Your task to perform on an android device: Show me recent news Image 0: 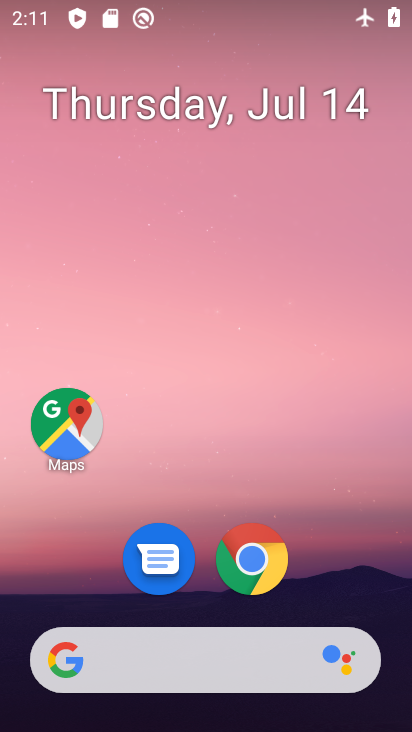
Step 0: drag from (251, 654) to (264, 93)
Your task to perform on an android device: Show me recent news Image 1: 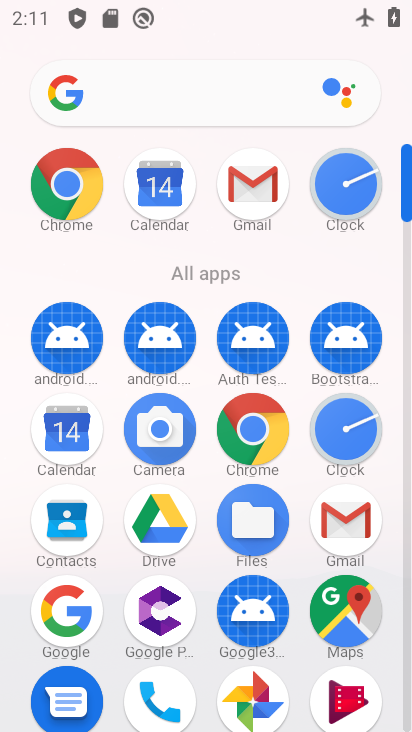
Step 1: click (249, 432)
Your task to perform on an android device: Show me recent news Image 2: 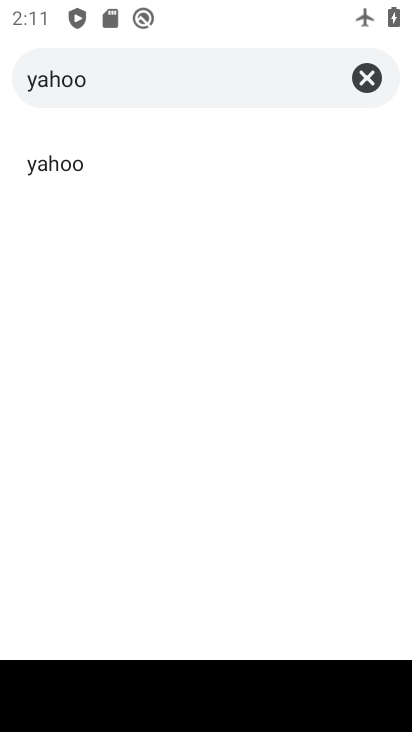
Step 2: click (375, 79)
Your task to perform on an android device: Show me recent news Image 3: 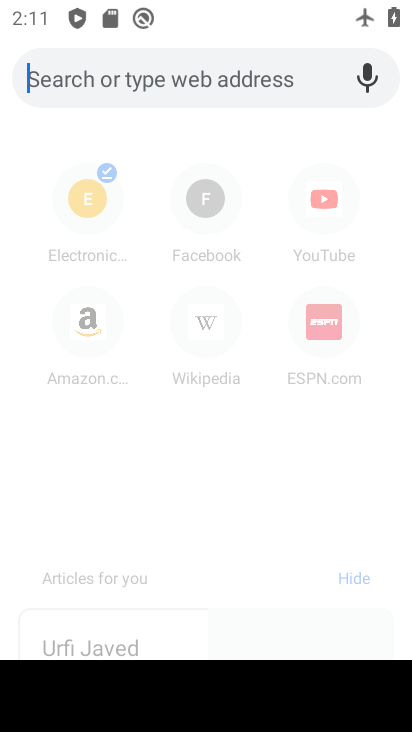
Step 3: press home button
Your task to perform on an android device: Show me recent news Image 4: 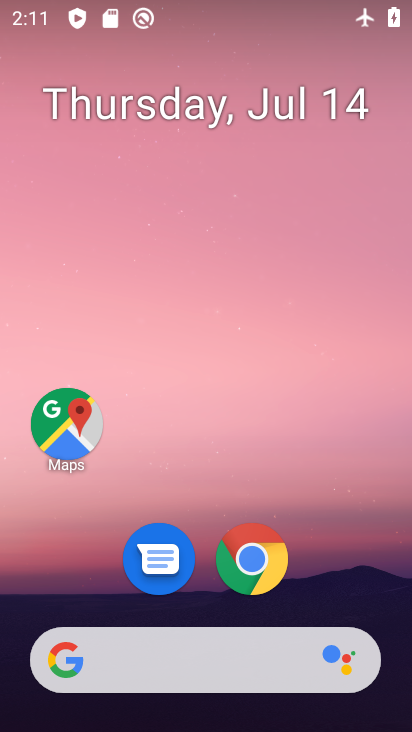
Step 4: drag from (163, 515) to (179, 93)
Your task to perform on an android device: Show me recent news Image 5: 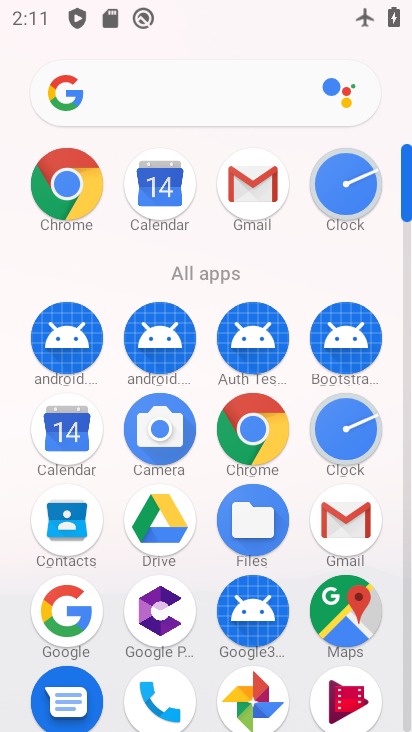
Step 5: click (77, 625)
Your task to perform on an android device: Show me recent news Image 6: 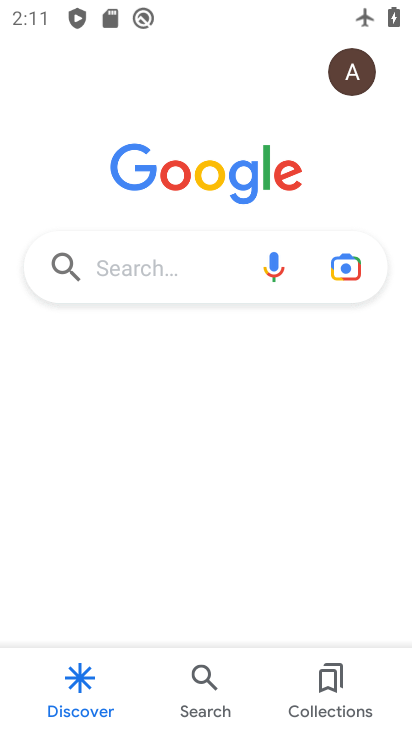
Step 6: click (193, 256)
Your task to perform on an android device: Show me recent news Image 7: 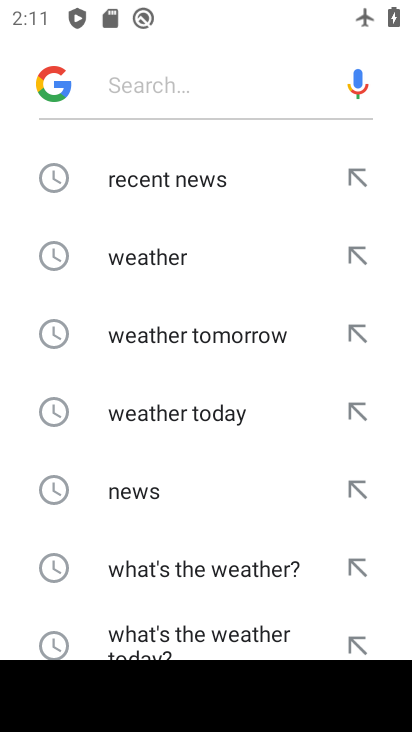
Step 7: type "recent news"
Your task to perform on an android device: Show me recent news Image 8: 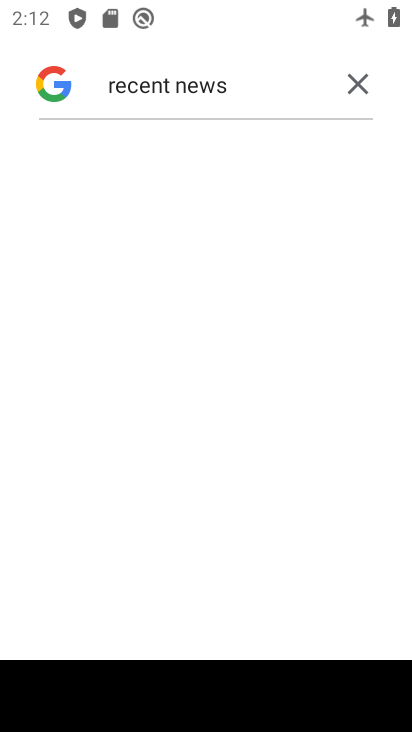
Step 8: task complete